Your task to perform on an android device: turn off improve location accuracy Image 0: 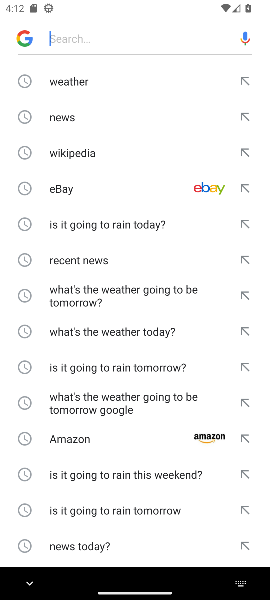
Step 0: press back button
Your task to perform on an android device: turn off improve location accuracy Image 1: 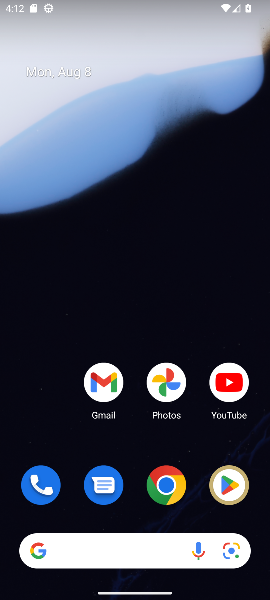
Step 1: drag from (140, 512) to (101, 136)
Your task to perform on an android device: turn off improve location accuracy Image 2: 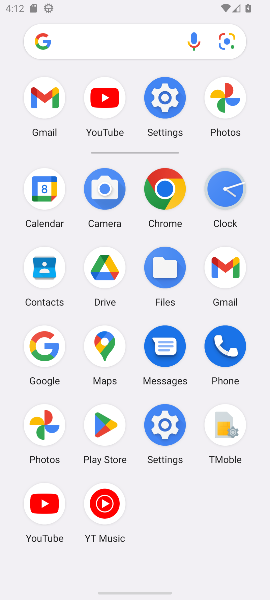
Step 2: drag from (120, 438) to (142, 158)
Your task to perform on an android device: turn off improve location accuracy Image 3: 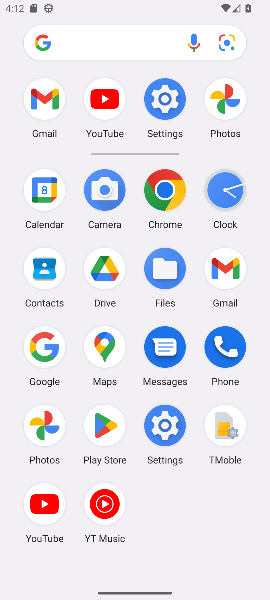
Step 3: click (175, 422)
Your task to perform on an android device: turn off improve location accuracy Image 4: 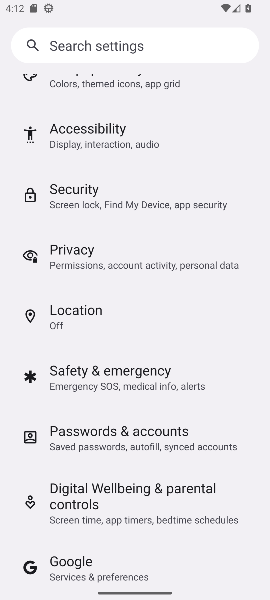
Step 4: drag from (114, 243) to (123, 570)
Your task to perform on an android device: turn off improve location accuracy Image 5: 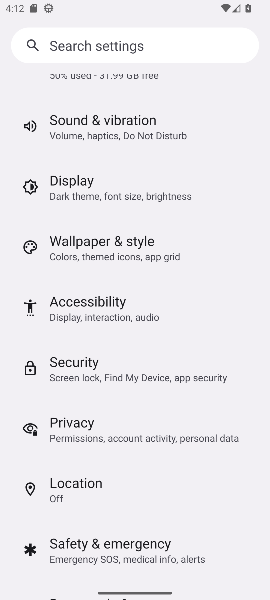
Step 5: drag from (112, 179) to (141, 461)
Your task to perform on an android device: turn off improve location accuracy Image 6: 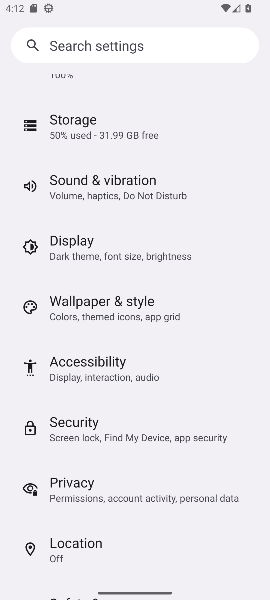
Step 6: drag from (122, 238) to (147, 502)
Your task to perform on an android device: turn off improve location accuracy Image 7: 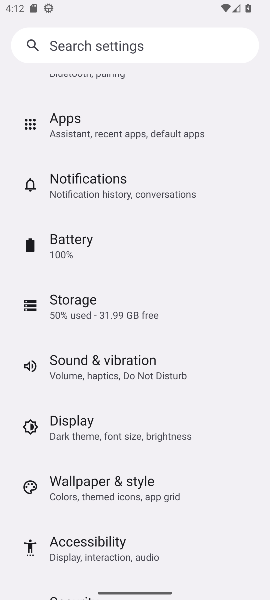
Step 7: drag from (107, 185) to (124, 543)
Your task to perform on an android device: turn off improve location accuracy Image 8: 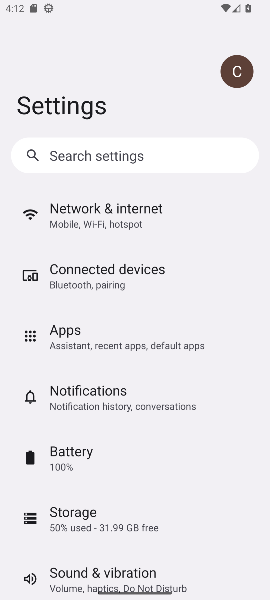
Step 8: drag from (143, 234) to (142, 504)
Your task to perform on an android device: turn off improve location accuracy Image 9: 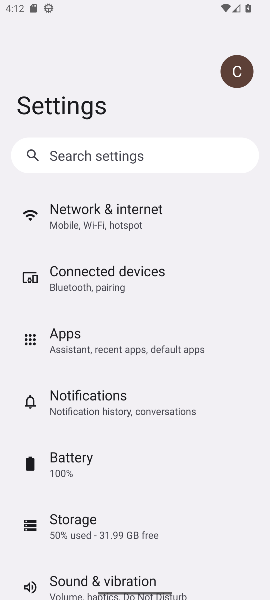
Step 9: drag from (74, 273) to (95, 471)
Your task to perform on an android device: turn off improve location accuracy Image 10: 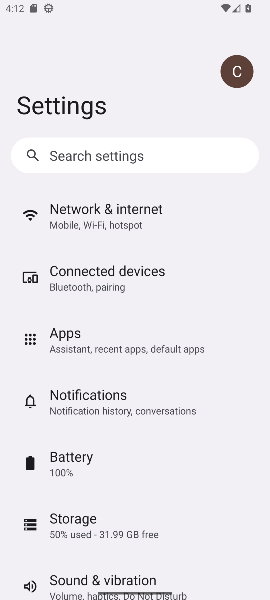
Step 10: drag from (133, 366) to (133, 524)
Your task to perform on an android device: turn off improve location accuracy Image 11: 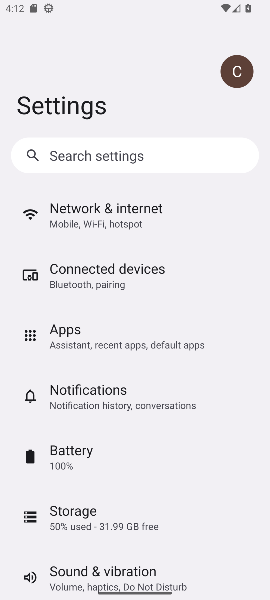
Step 11: click (87, 215)
Your task to perform on an android device: turn off improve location accuracy Image 12: 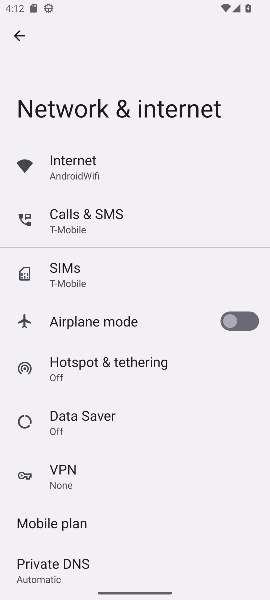
Step 12: click (35, 34)
Your task to perform on an android device: turn off improve location accuracy Image 13: 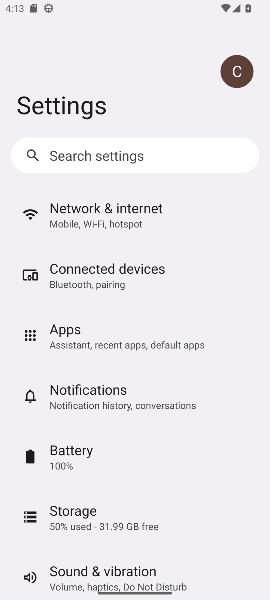
Step 13: click (109, 220)
Your task to perform on an android device: turn off improve location accuracy Image 14: 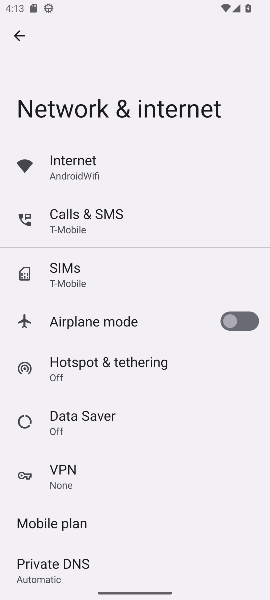
Step 14: click (26, 36)
Your task to perform on an android device: turn off improve location accuracy Image 15: 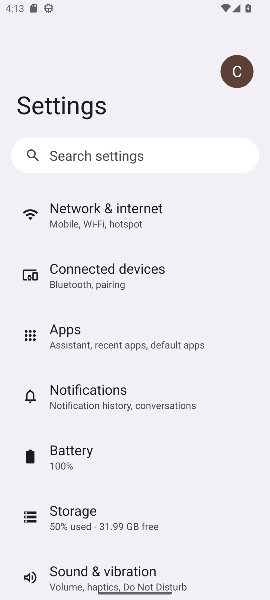
Step 15: click (74, 389)
Your task to perform on an android device: turn off improve location accuracy Image 16: 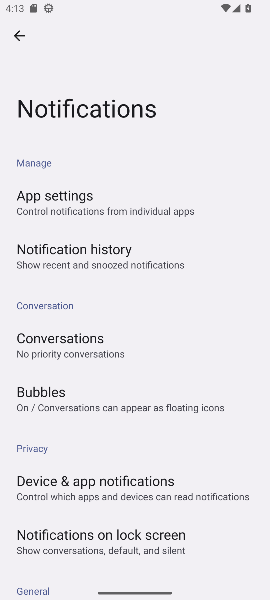
Step 16: click (19, 30)
Your task to perform on an android device: turn off improve location accuracy Image 17: 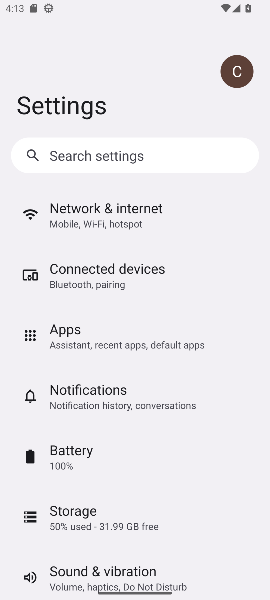
Step 17: drag from (165, 484) to (93, 135)
Your task to perform on an android device: turn off improve location accuracy Image 18: 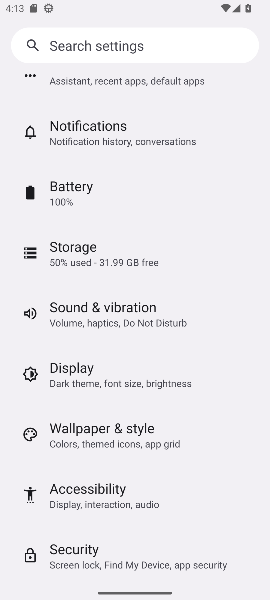
Step 18: drag from (118, 542) to (141, 177)
Your task to perform on an android device: turn off improve location accuracy Image 19: 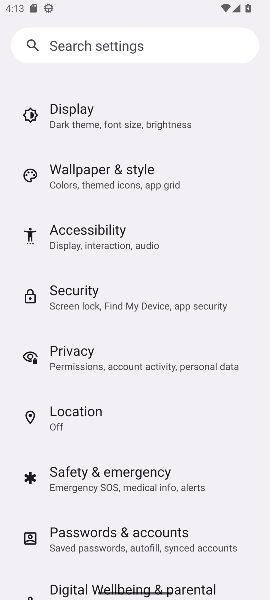
Step 19: drag from (160, 476) to (145, 77)
Your task to perform on an android device: turn off improve location accuracy Image 20: 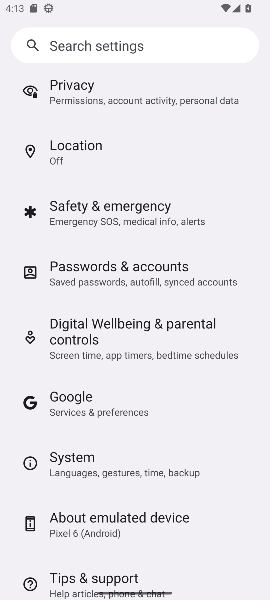
Step 20: click (46, 157)
Your task to perform on an android device: turn off improve location accuracy Image 21: 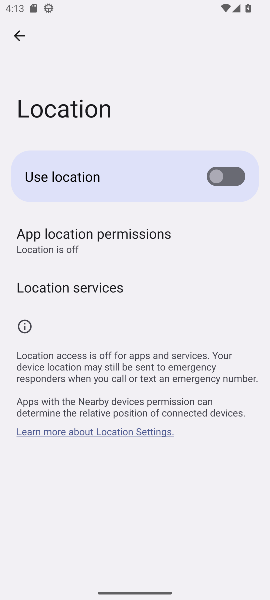
Step 21: task complete